Your task to perform on an android device: View the shopping cart on costco.com. Image 0: 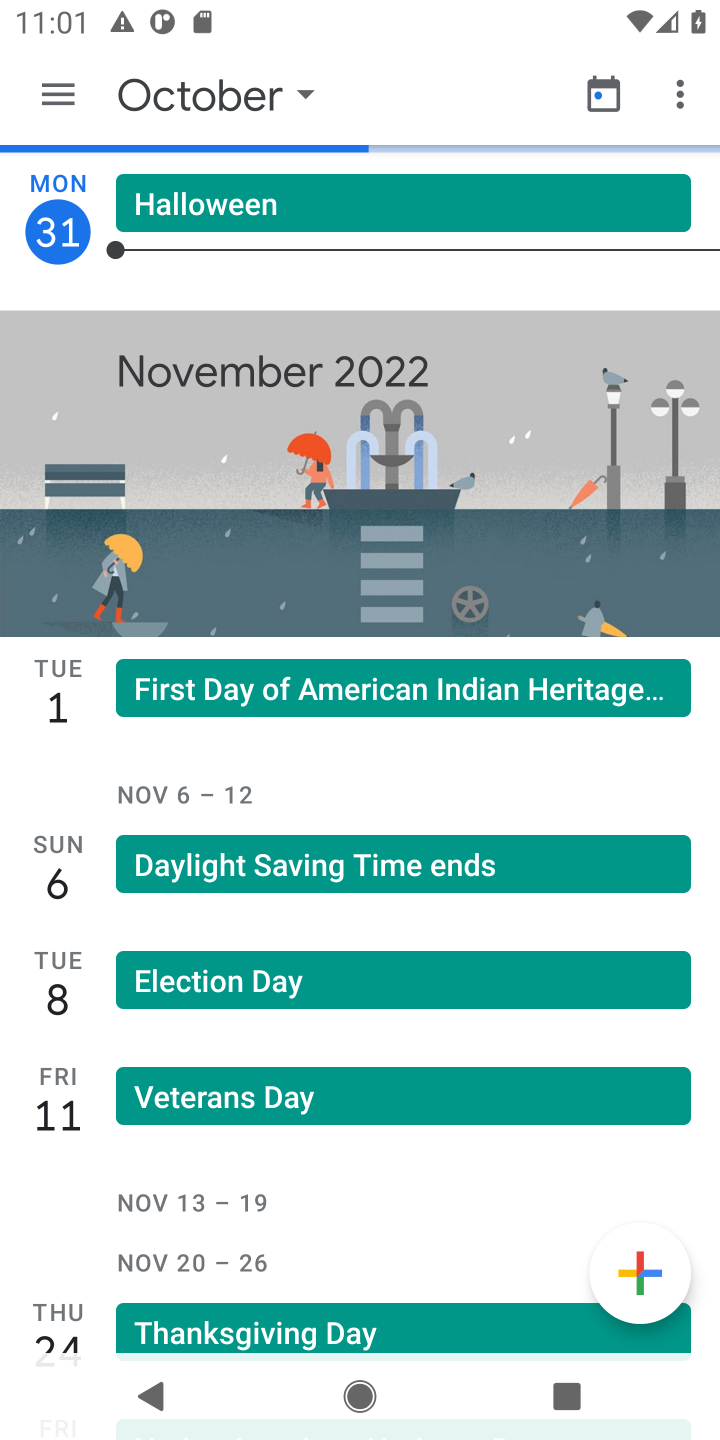
Step 0: press home button
Your task to perform on an android device: View the shopping cart on costco.com. Image 1: 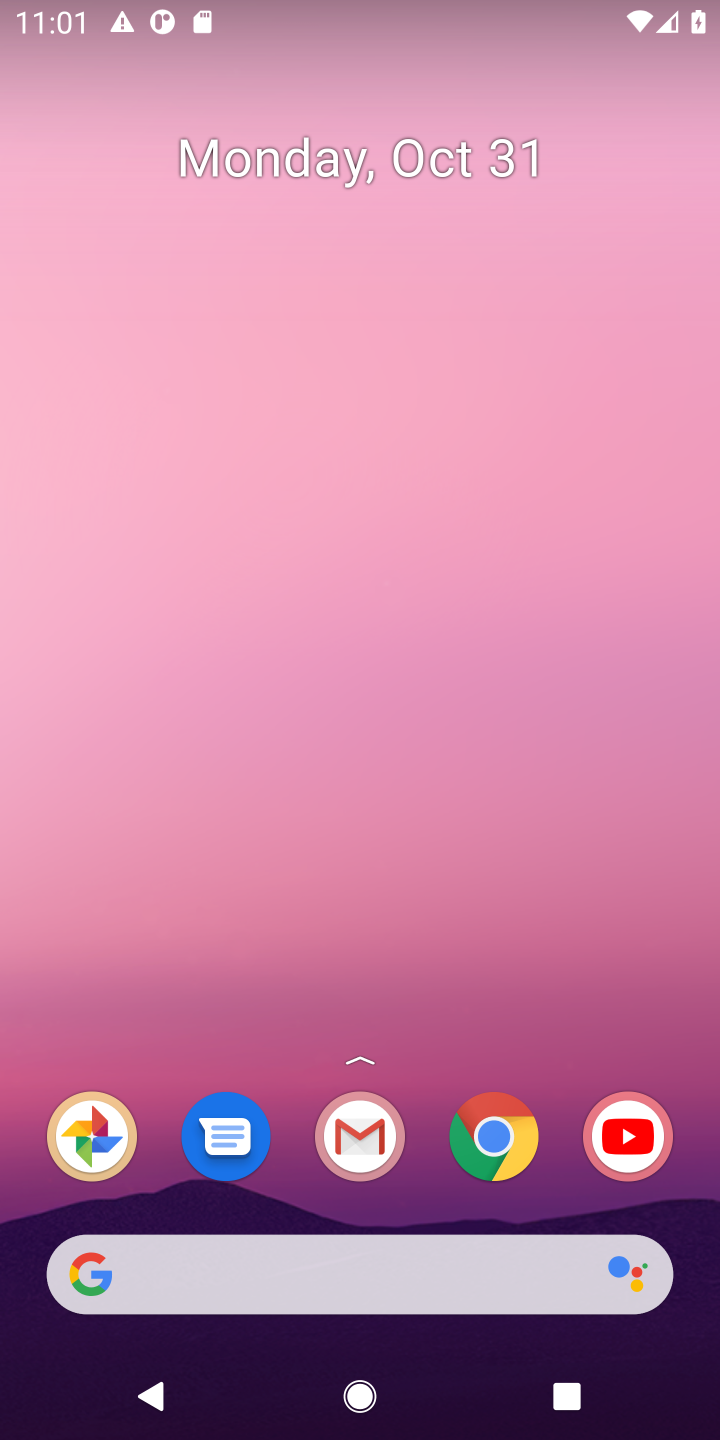
Step 1: click (129, 1283)
Your task to perform on an android device: View the shopping cart on costco.com. Image 2: 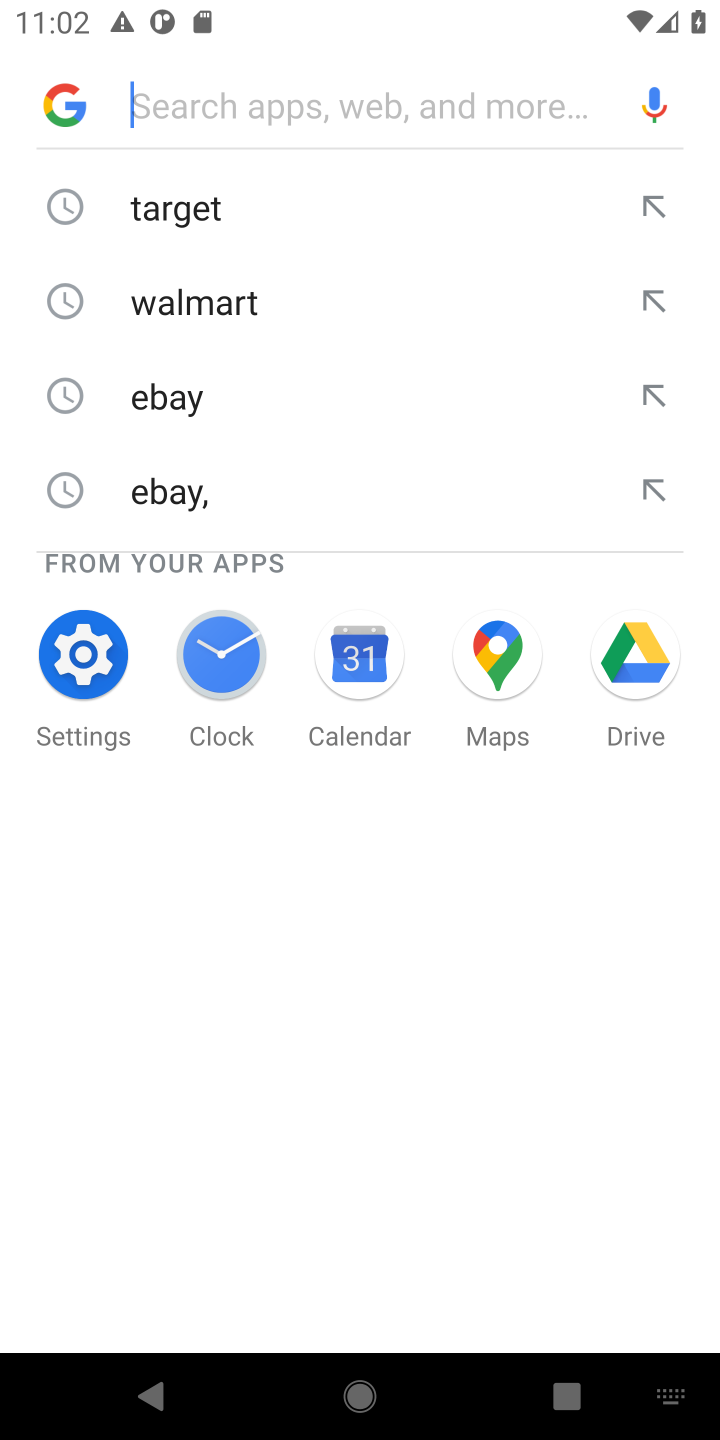
Step 2: type "costco.com"
Your task to perform on an android device: View the shopping cart on costco.com. Image 3: 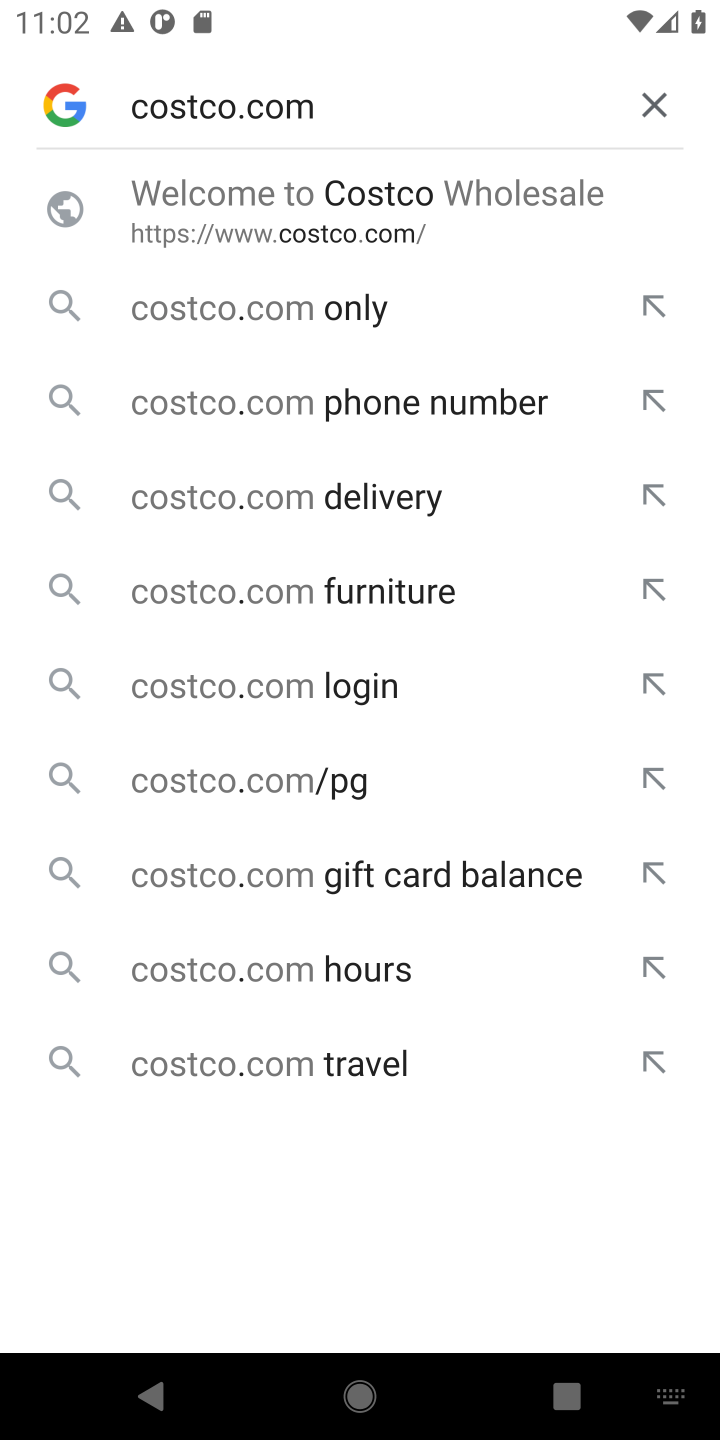
Step 3: press enter
Your task to perform on an android device: View the shopping cart on costco.com. Image 4: 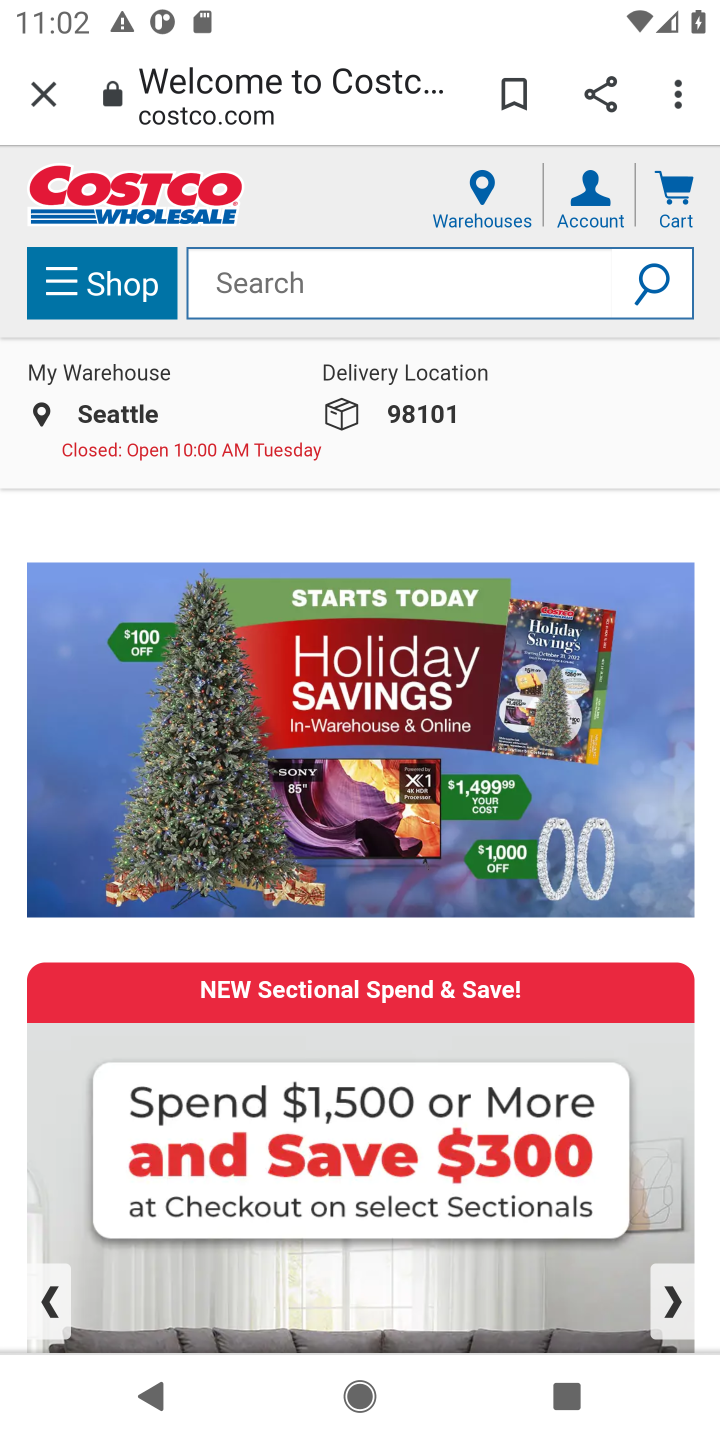
Step 4: click (667, 193)
Your task to perform on an android device: View the shopping cart on costco.com. Image 5: 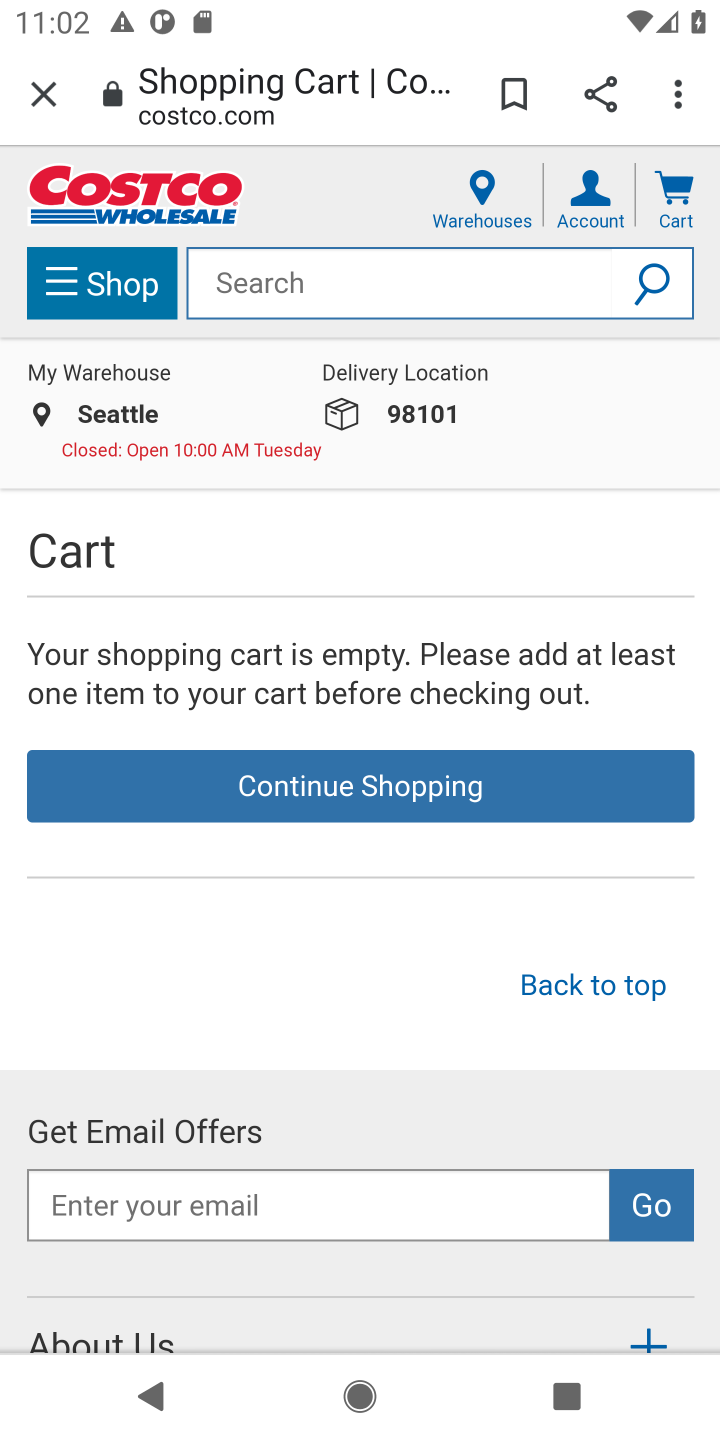
Step 5: task complete